Your task to perform on an android device: check google app version Image 0: 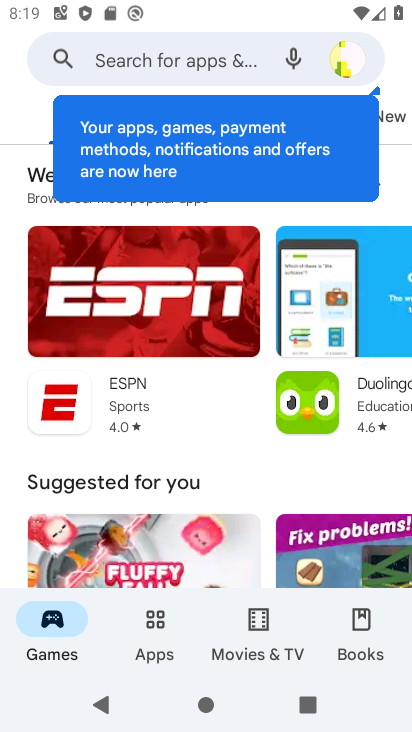
Step 0: press home button
Your task to perform on an android device: check google app version Image 1: 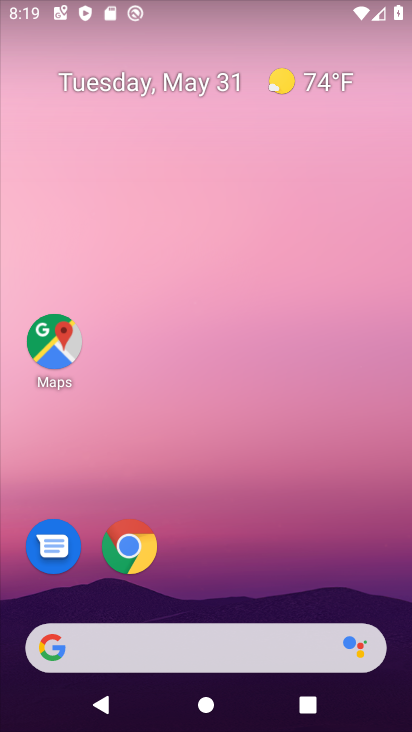
Step 1: drag from (250, 591) to (239, 121)
Your task to perform on an android device: check google app version Image 2: 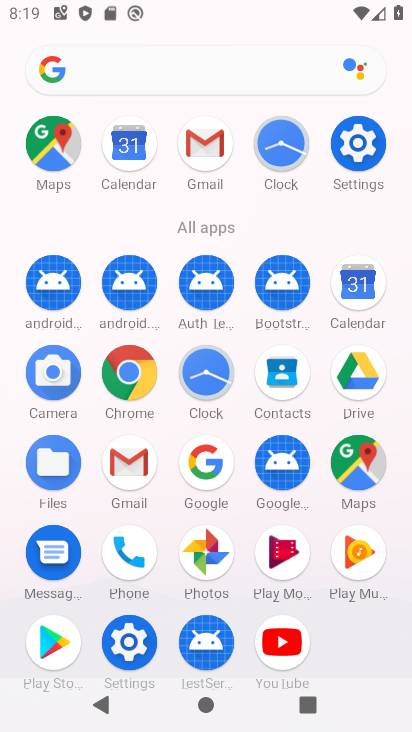
Step 2: click (203, 461)
Your task to perform on an android device: check google app version Image 3: 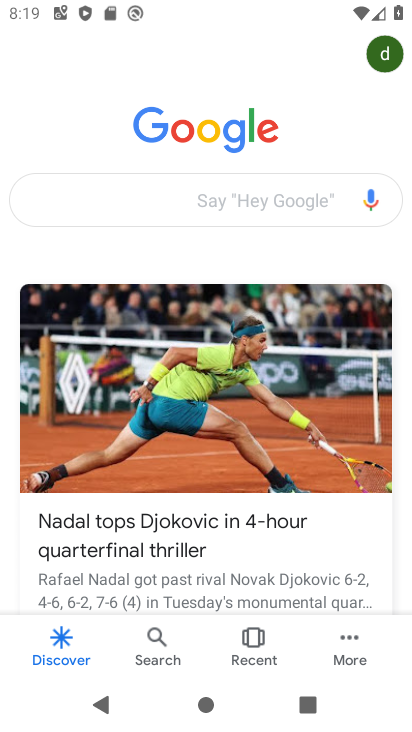
Step 3: click (351, 655)
Your task to perform on an android device: check google app version Image 4: 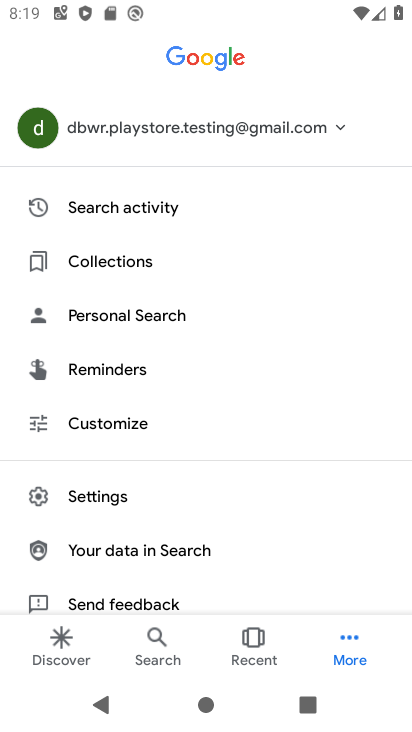
Step 4: drag from (157, 548) to (217, 179)
Your task to perform on an android device: check google app version Image 5: 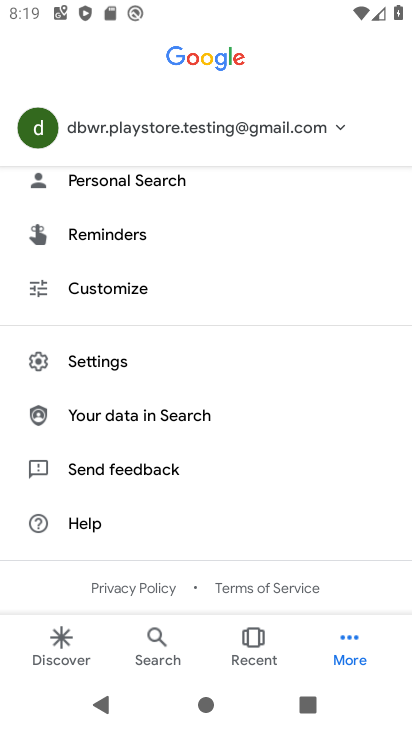
Step 5: click (69, 361)
Your task to perform on an android device: check google app version Image 6: 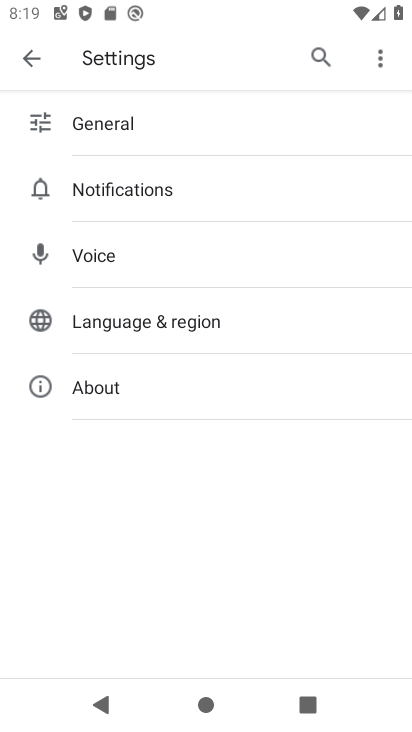
Step 6: click (125, 386)
Your task to perform on an android device: check google app version Image 7: 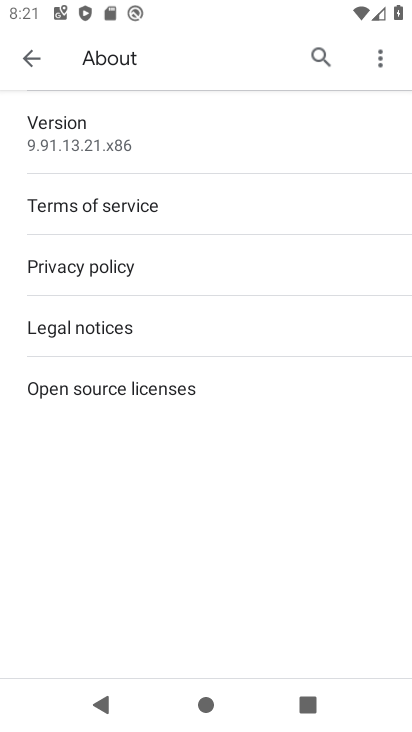
Step 7: task complete